Your task to perform on an android device: Open the calendar app, open the side menu, and click the "Day" option Image 0: 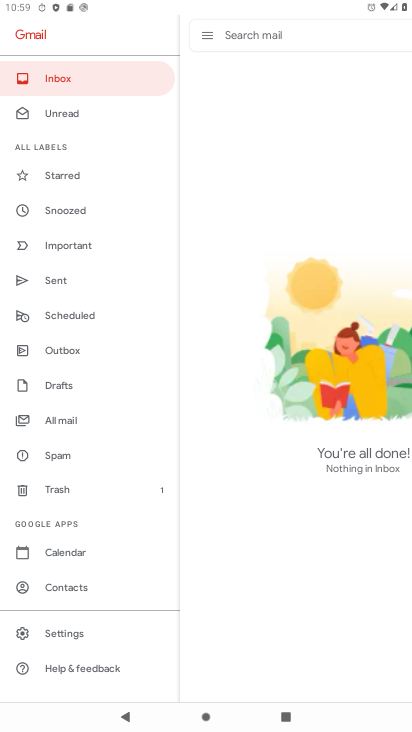
Step 0: press home button
Your task to perform on an android device: Open the calendar app, open the side menu, and click the "Day" option Image 1: 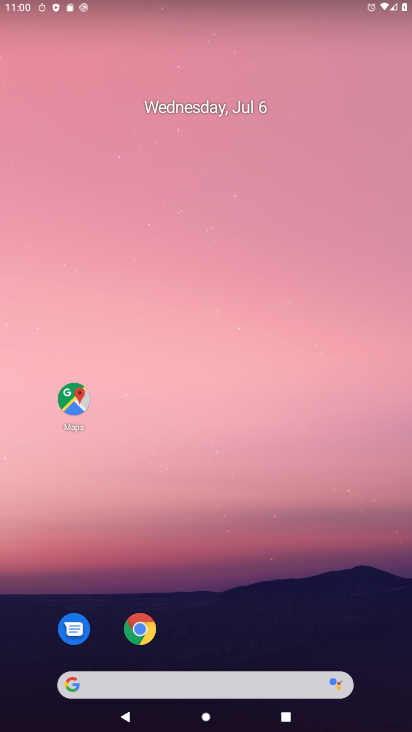
Step 1: drag from (216, 604) to (227, 87)
Your task to perform on an android device: Open the calendar app, open the side menu, and click the "Day" option Image 2: 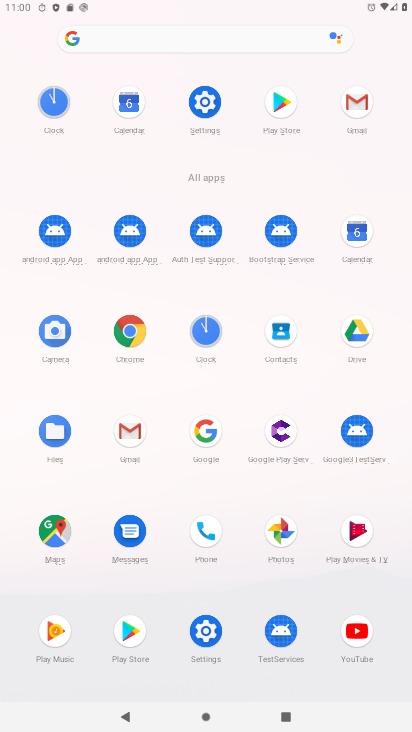
Step 2: click (355, 235)
Your task to perform on an android device: Open the calendar app, open the side menu, and click the "Day" option Image 3: 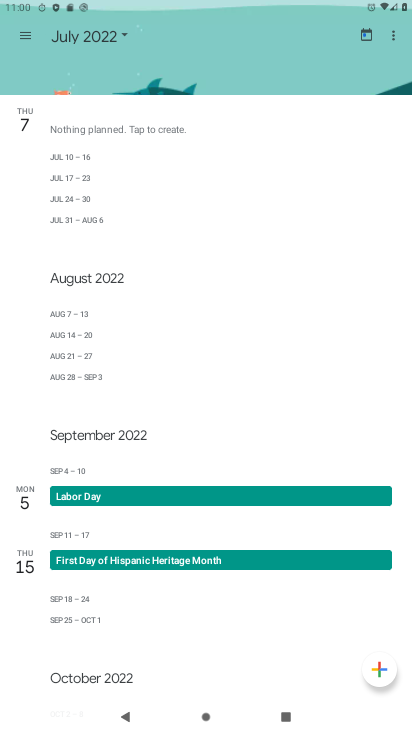
Step 3: click (20, 32)
Your task to perform on an android device: Open the calendar app, open the side menu, and click the "Day" option Image 4: 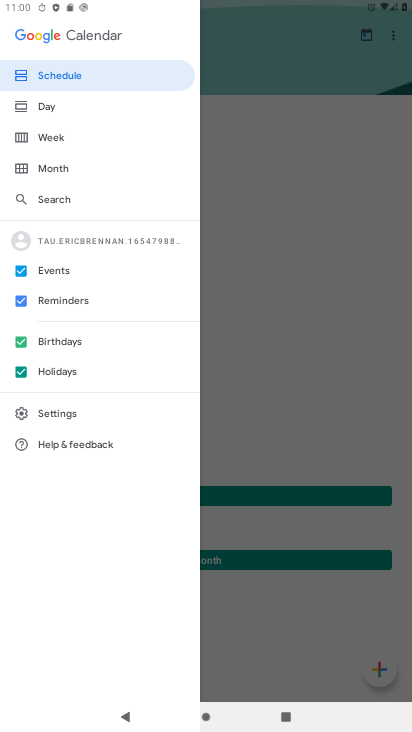
Step 4: click (54, 109)
Your task to perform on an android device: Open the calendar app, open the side menu, and click the "Day" option Image 5: 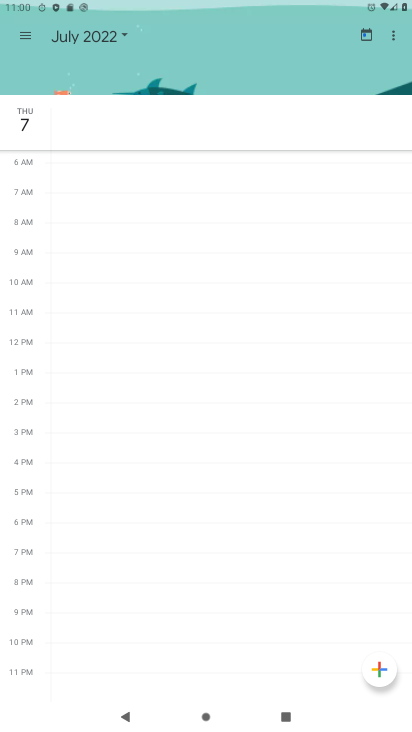
Step 5: task complete